Your task to perform on an android device: change the clock display to analog Image 0: 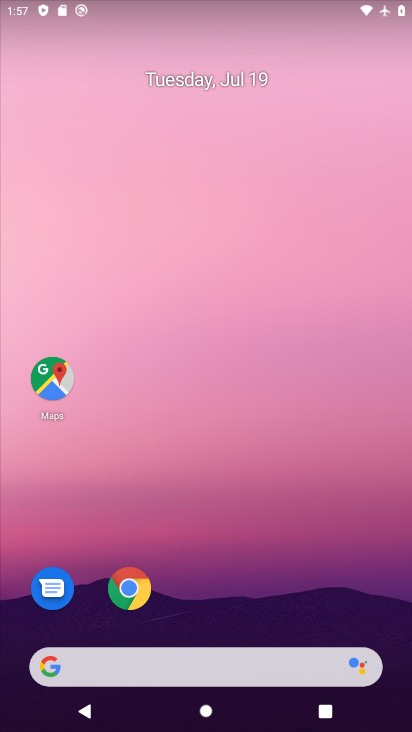
Step 0: drag from (179, 628) to (213, 86)
Your task to perform on an android device: change the clock display to analog Image 1: 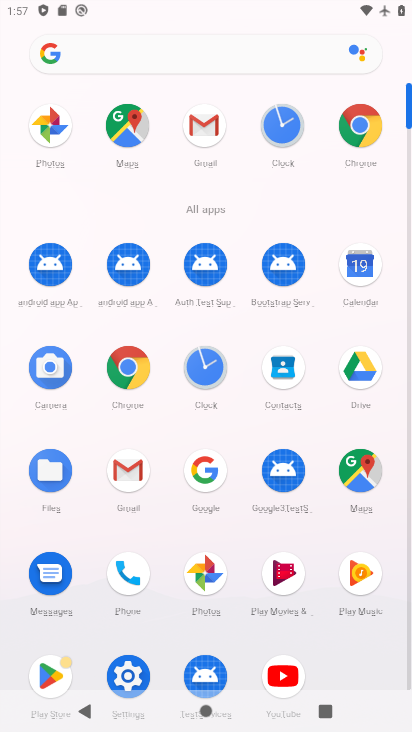
Step 1: click (279, 202)
Your task to perform on an android device: change the clock display to analog Image 2: 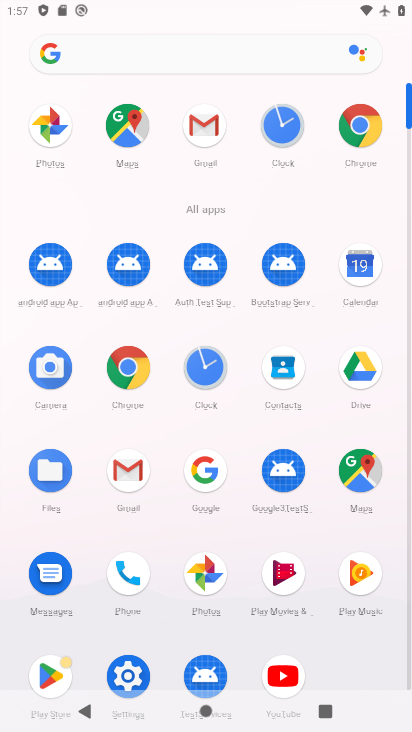
Step 2: click (294, 147)
Your task to perform on an android device: change the clock display to analog Image 3: 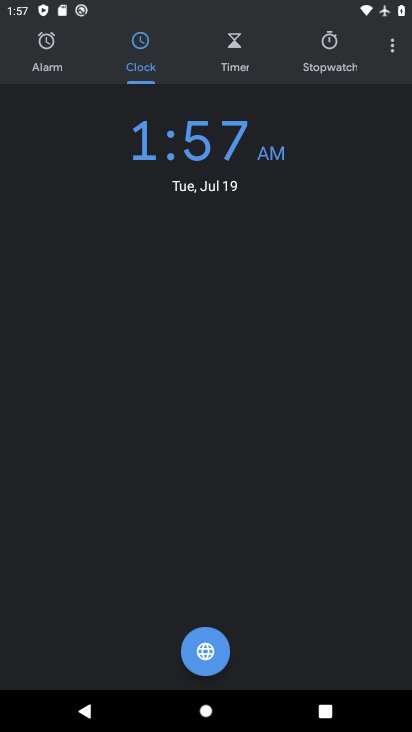
Step 3: click (399, 37)
Your task to perform on an android device: change the clock display to analog Image 4: 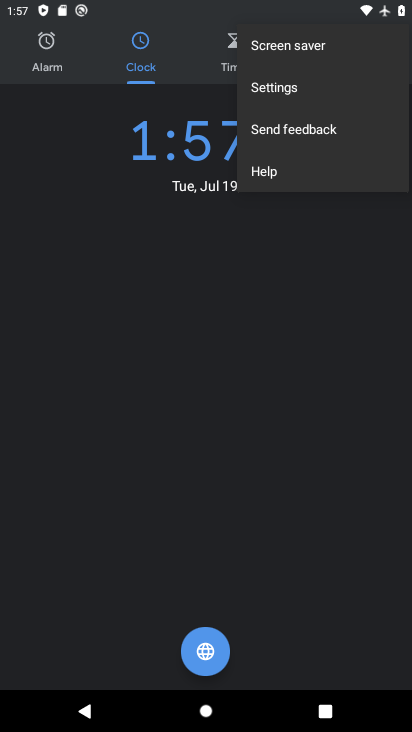
Step 4: click (278, 92)
Your task to perform on an android device: change the clock display to analog Image 5: 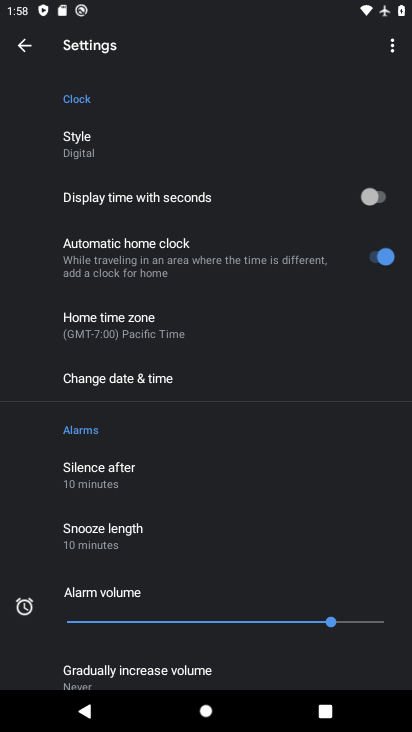
Step 5: click (79, 142)
Your task to perform on an android device: change the clock display to analog Image 6: 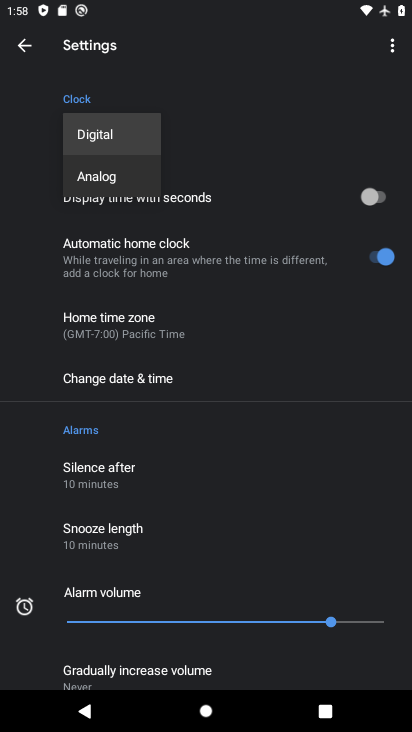
Step 6: click (93, 182)
Your task to perform on an android device: change the clock display to analog Image 7: 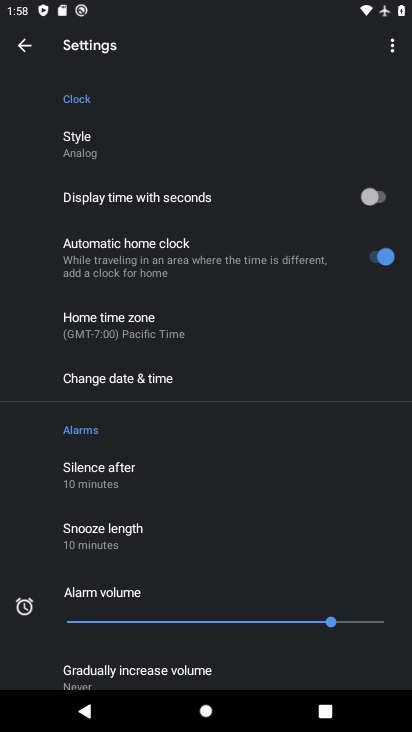
Step 7: task complete